Your task to perform on an android device: clear all cookies in the chrome app Image 0: 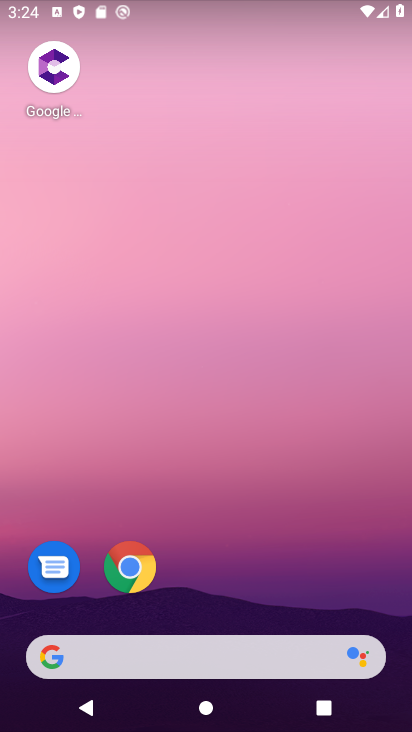
Step 0: drag from (294, 573) to (225, 62)
Your task to perform on an android device: clear all cookies in the chrome app Image 1: 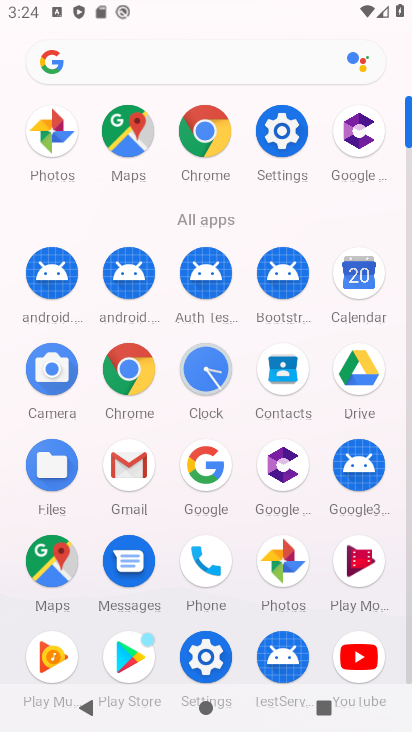
Step 1: click (211, 128)
Your task to perform on an android device: clear all cookies in the chrome app Image 2: 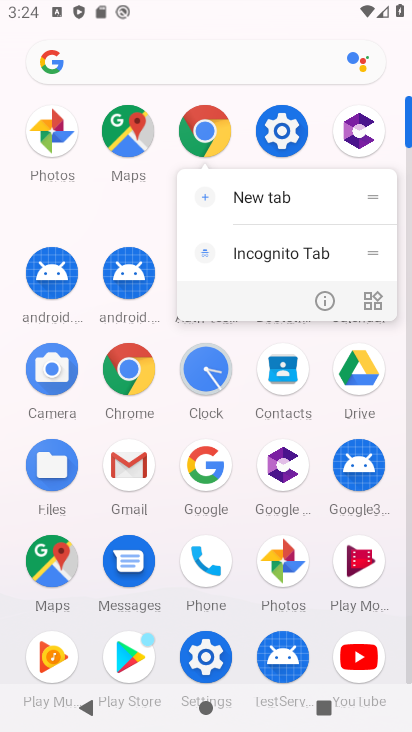
Step 2: click (211, 128)
Your task to perform on an android device: clear all cookies in the chrome app Image 3: 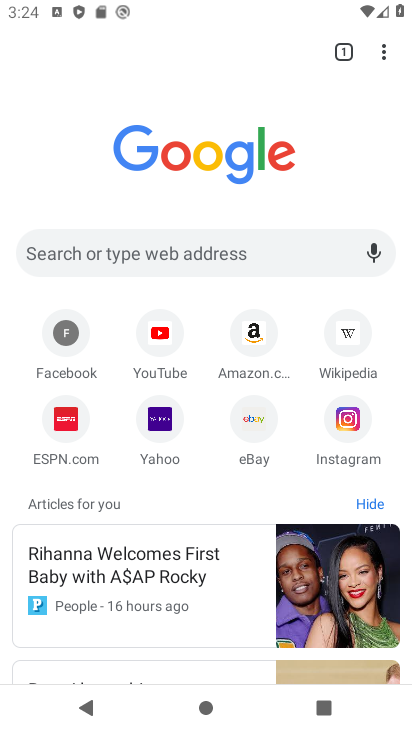
Step 3: task complete